Your task to perform on an android device: open the mobile data screen to see how much data has been used Image 0: 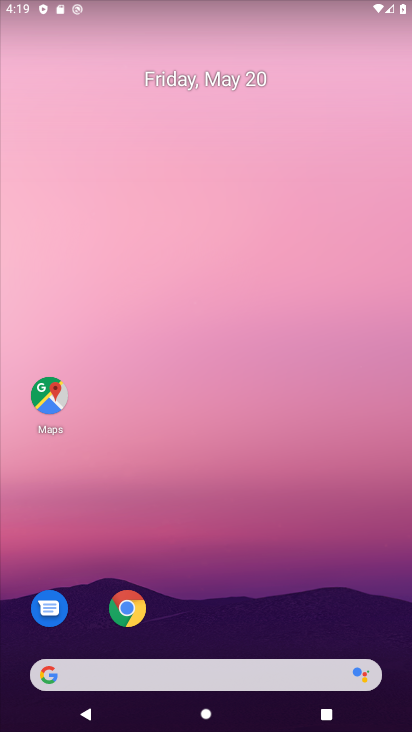
Step 0: drag from (190, 664) to (132, 123)
Your task to perform on an android device: open the mobile data screen to see how much data has been used Image 1: 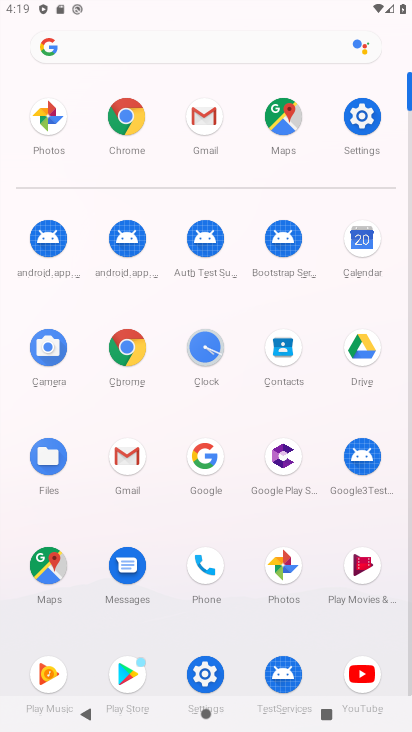
Step 1: click (357, 109)
Your task to perform on an android device: open the mobile data screen to see how much data has been used Image 2: 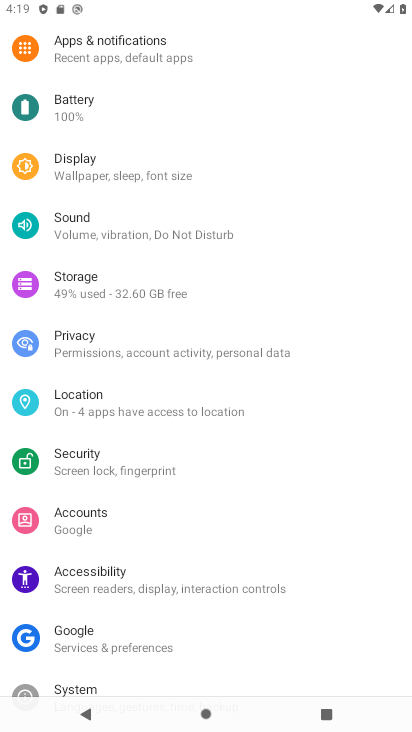
Step 2: drag from (328, 132) to (264, 462)
Your task to perform on an android device: open the mobile data screen to see how much data has been used Image 3: 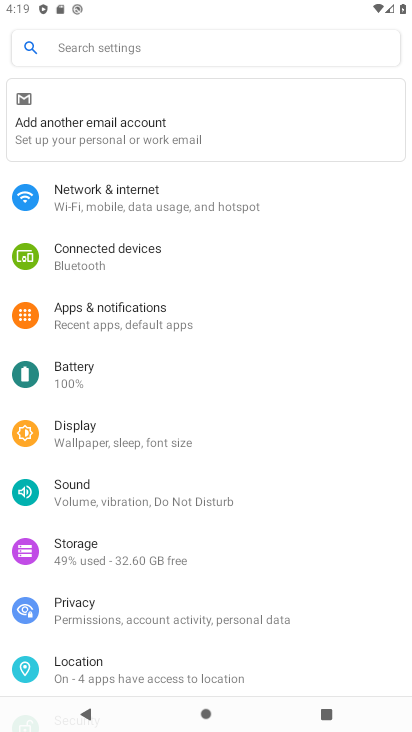
Step 3: click (150, 208)
Your task to perform on an android device: open the mobile data screen to see how much data has been used Image 4: 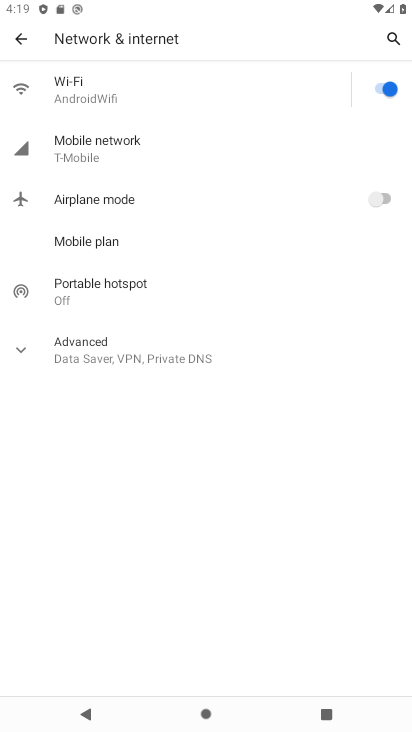
Step 4: click (128, 142)
Your task to perform on an android device: open the mobile data screen to see how much data has been used Image 5: 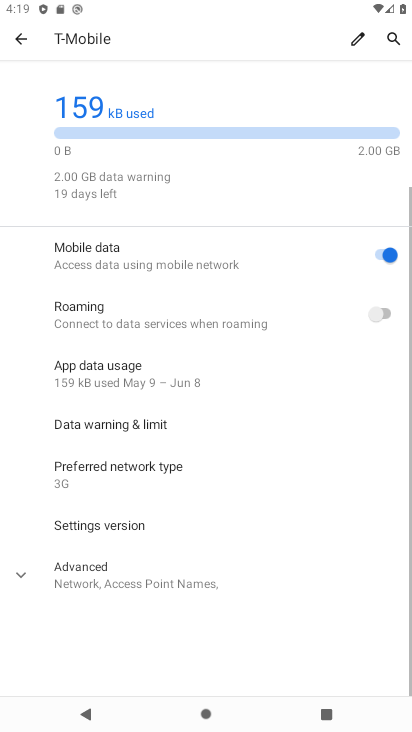
Step 5: task complete